Your task to perform on an android device: toggle improve location accuracy Image 0: 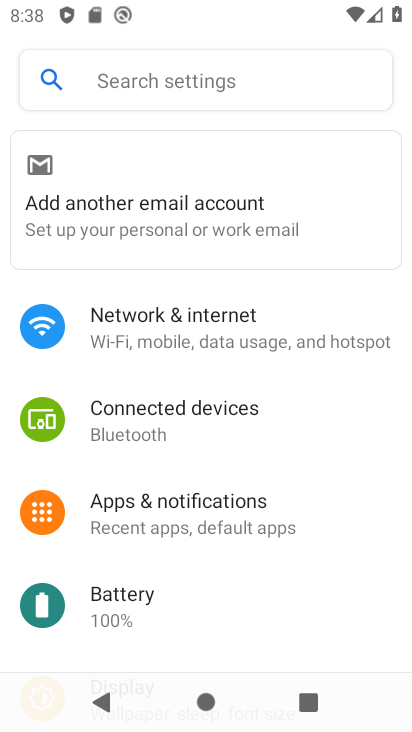
Step 0: drag from (254, 648) to (288, 227)
Your task to perform on an android device: toggle improve location accuracy Image 1: 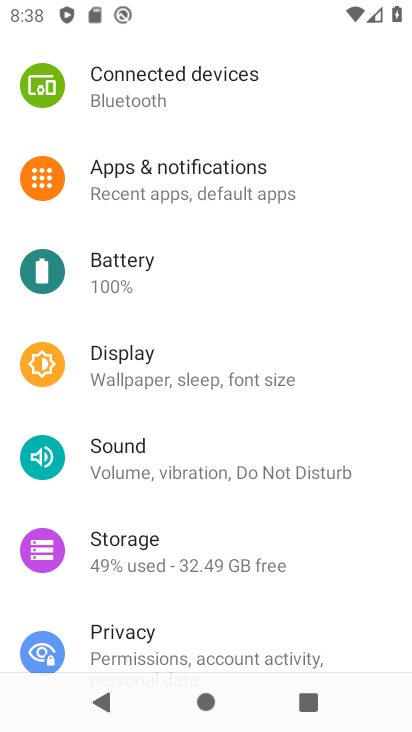
Step 1: drag from (193, 561) to (205, 122)
Your task to perform on an android device: toggle improve location accuracy Image 2: 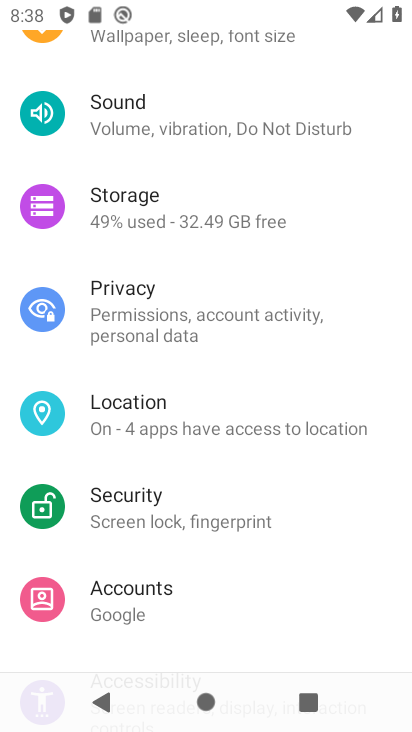
Step 2: click (106, 399)
Your task to perform on an android device: toggle improve location accuracy Image 3: 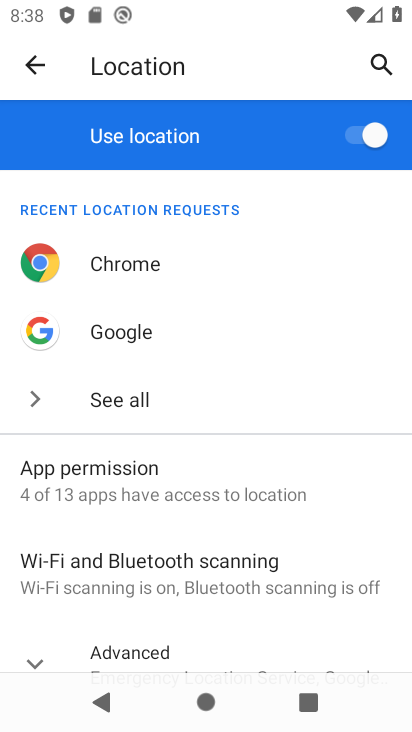
Step 3: drag from (81, 588) to (178, 285)
Your task to perform on an android device: toggle improve location accuracy Image 4: 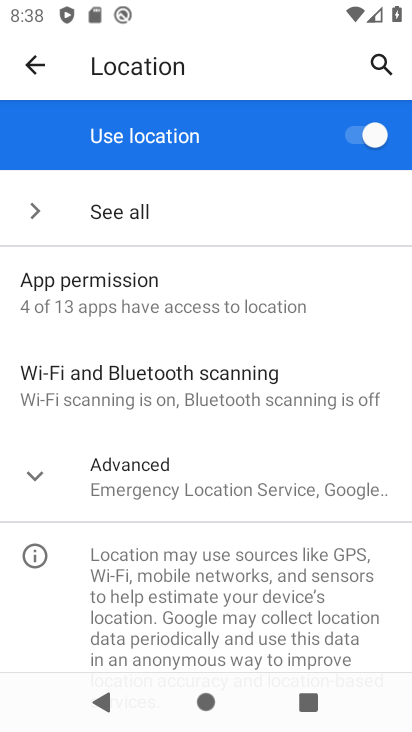
Step 4: click (229, 488)
Your task to perform on an android device: toggle improve location accuracy Image 5: 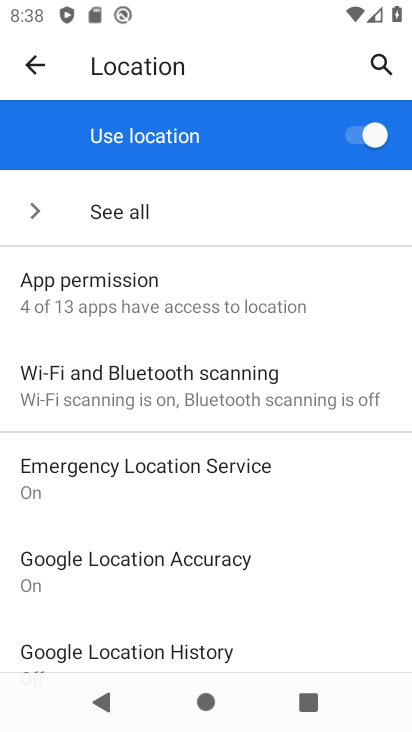
Step 5: click (175, 562)
Your task to perform on an android device: toggle improve location accuracy Image 6: 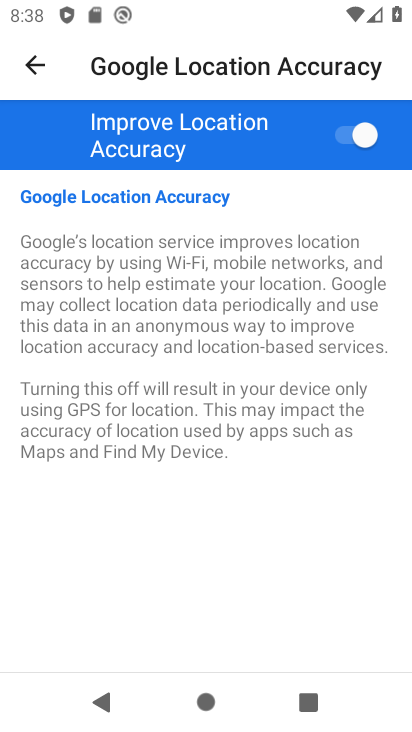
Step 6: task complete